Your task to perform on an android device: change timer sound Image 0: 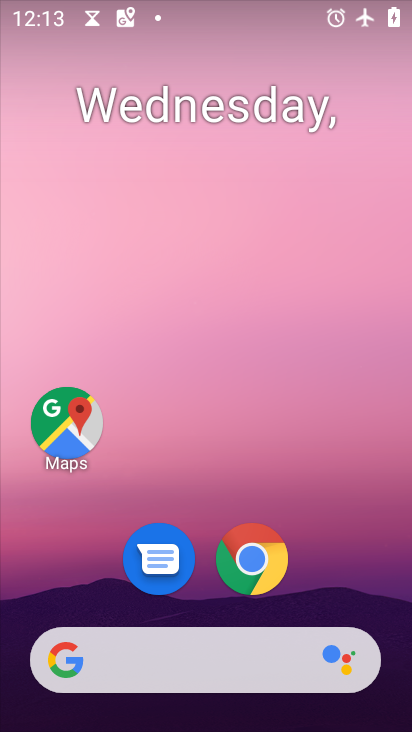
Step 0: drag from (342, 571) to (309, 30)
Your task to perform on an android device: change timer sound Image 1: 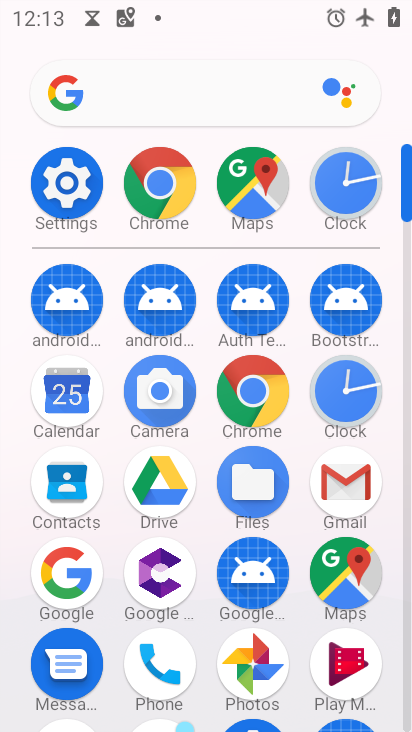
Step 1: click (349, 402)
Your task to perform on an android device: change timer sound Image 2: 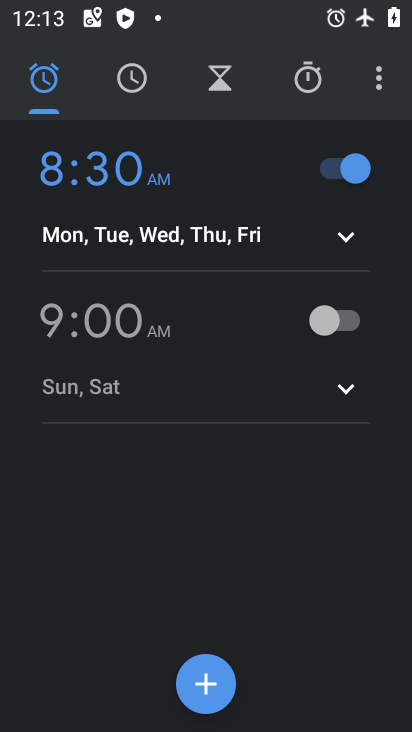
Step 2: click (384, 82)
Your task to perform on an android device: change timer sound Image 3: 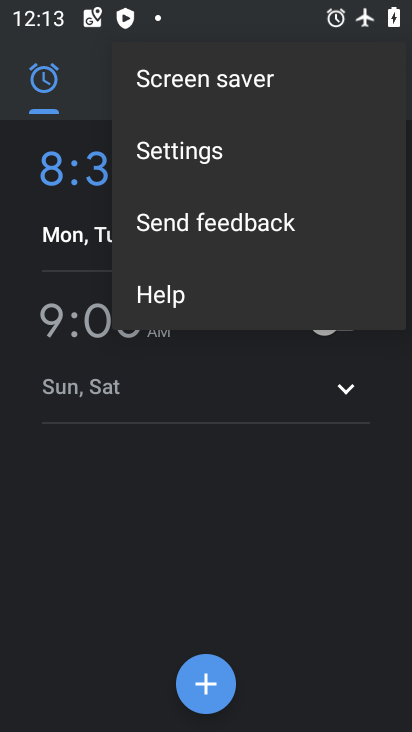
Step 3: click (181, 158)
Your task to perform on an android device: change timer sound Image 4: 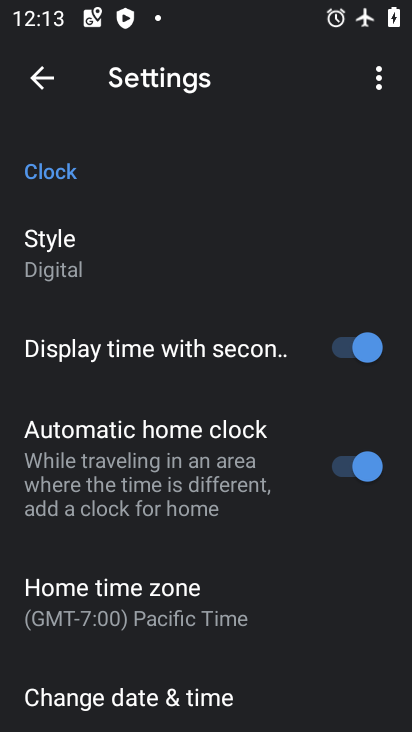
Step 4: drag from (173, 594) to (228, 179)
Your task to perform on an android device: change timer sound Image 5: 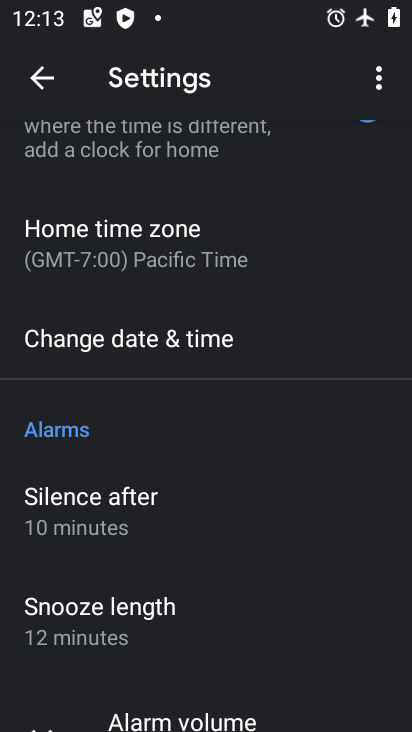
Step 5: drag from (166, 626) to (227, 221)
Your task to perform on an android device: change timer sound Image 6: 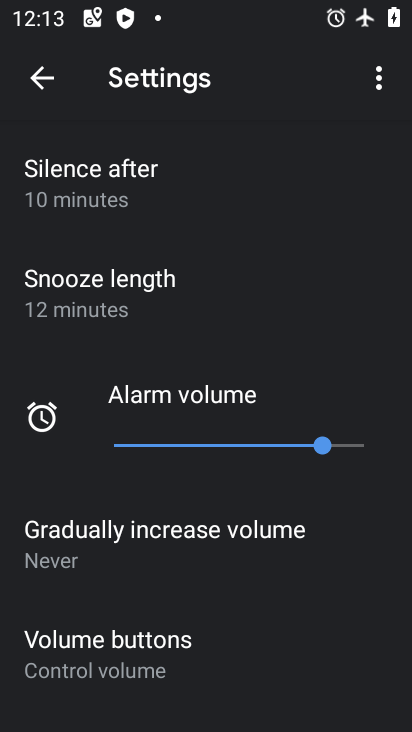
Step 6: drag from (253, 300) to (242, 684)
Your task to perform on an android device: change timer sound Image 7: 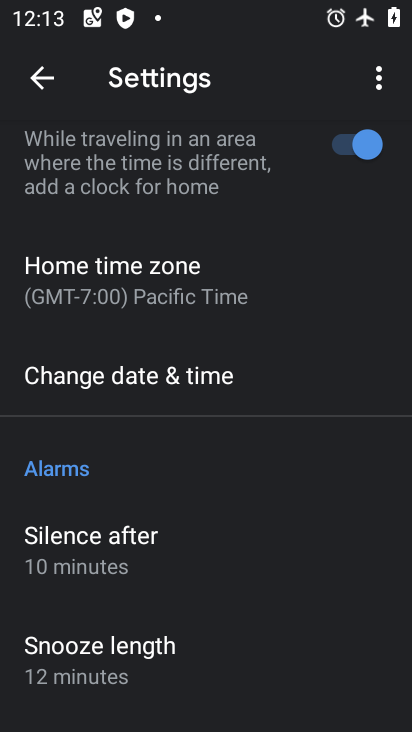
Step 7: drag from (265, 233) to (244, 599)
Your task to perform on an android device: change timer sound Image 8: 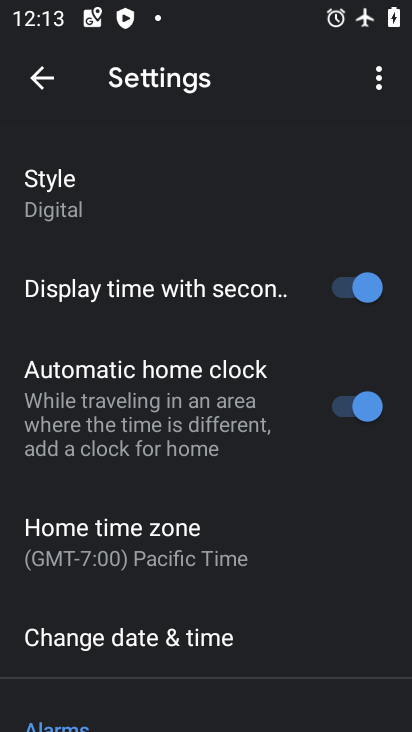
Step 8: drag from (165, 314) to (259, 622)
Your task to perform on an android device: change timer sound Image 9: 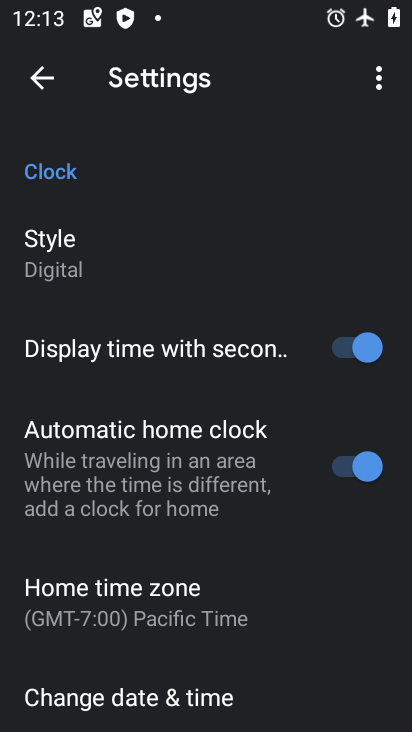
Step 9: drag from (236, 633) to (239, 206)
Your task to perform on an android device: change timer sound Image 10: 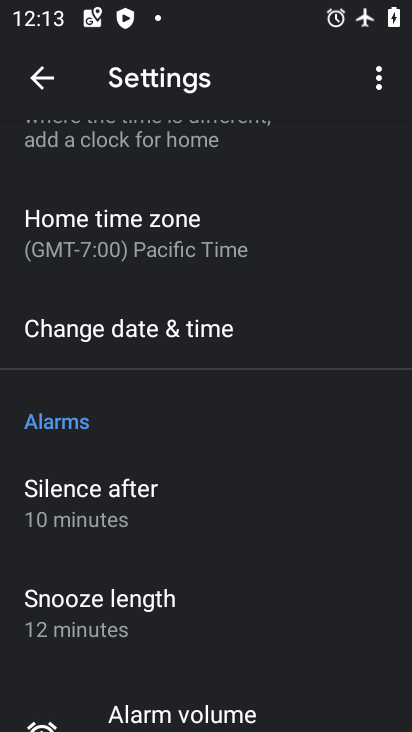
Step 10: drag from (201, 560) to (164, 164)
Your task to perform on an android device: change timer sound Image 11: 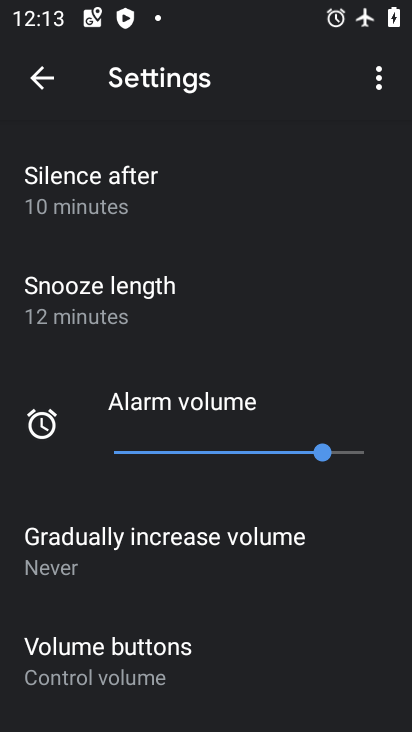
Step 11: drag from (205, 640) to (179, 169)
Your task to perform on an android device: change timer sound Image 12: 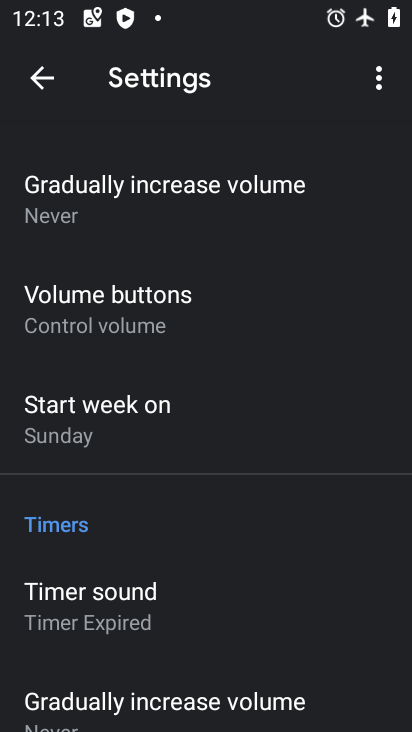
Step 12: drag from (151, 654) to (189, 239)
Your task to perform on an android device: change timer sound Image 13: 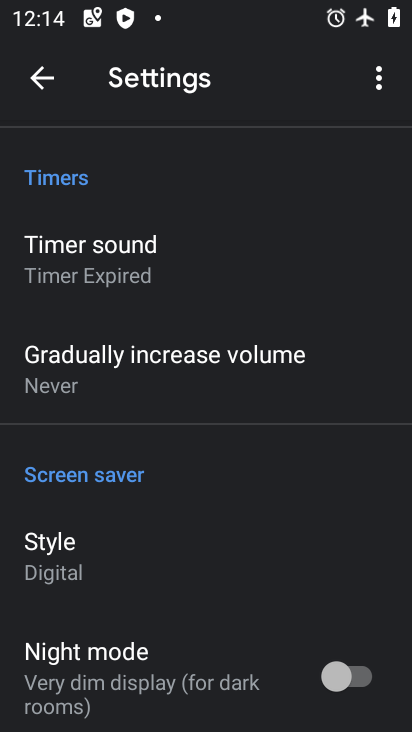
Step 13: click (154, 282)
Your task to perform on an android device: change timer sound Image 14: 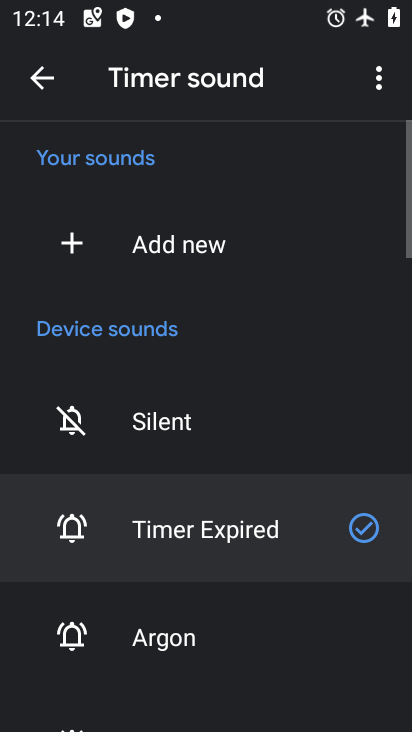
Step 14: click (195, 651)
Your task to perform on an android device: change timer sound Image 15: 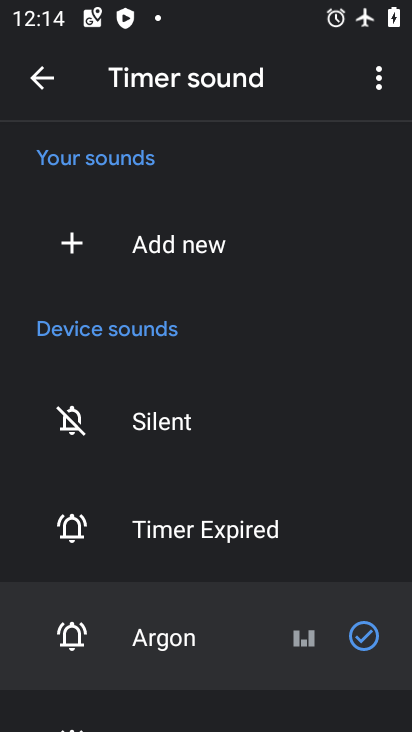
Step 15: task complete